Your task to perform on an android device: What's the weather going to be tomorrow? Image 0: 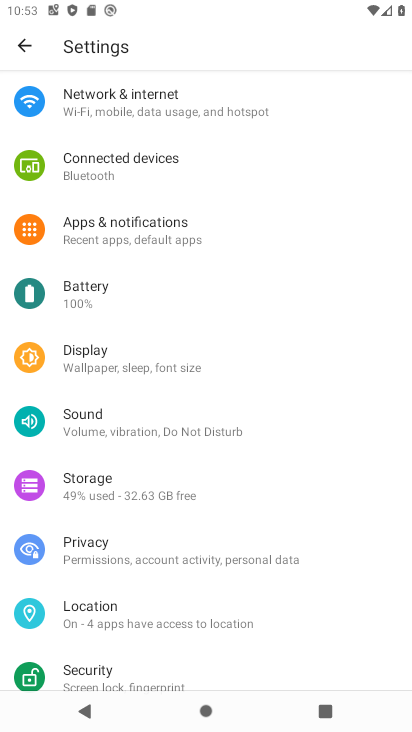
Step 0: press home button
Your task to perform on an android device: What's the weather going to be tomorrow? Image 1: 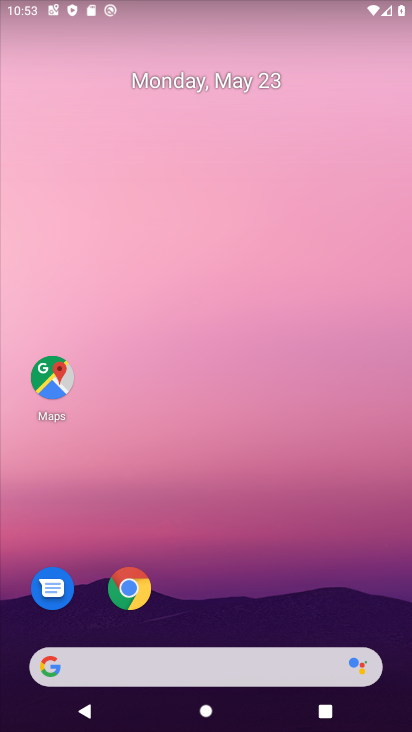
Step 1: click (128, 587)
Your task to perform on an android device: What's the weather going to be tomorrow? Image 2: 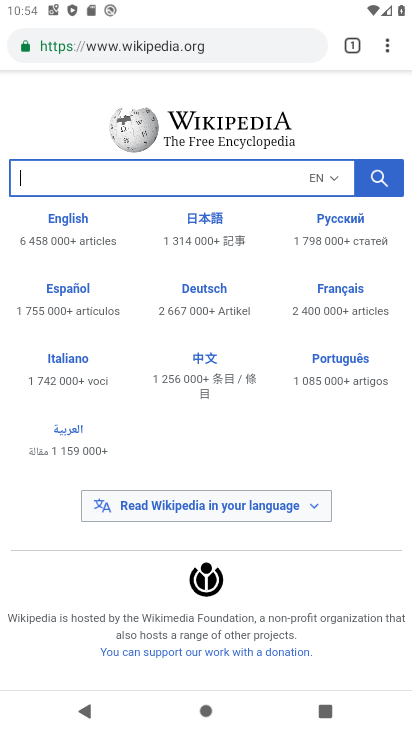
Step 2: click (212, 48)
Your task to perform on an android device: What's the weather going to be tomorrow? Image 3: 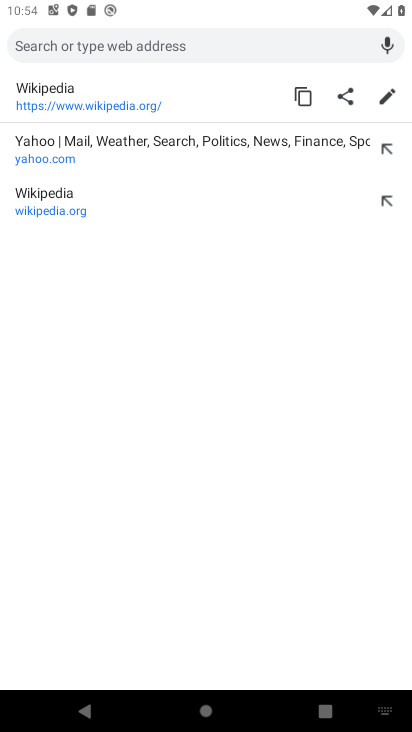
Step 3: type "weather"
Your task to perform on an android device: What's the weather going to be tomorrow? Image 4: 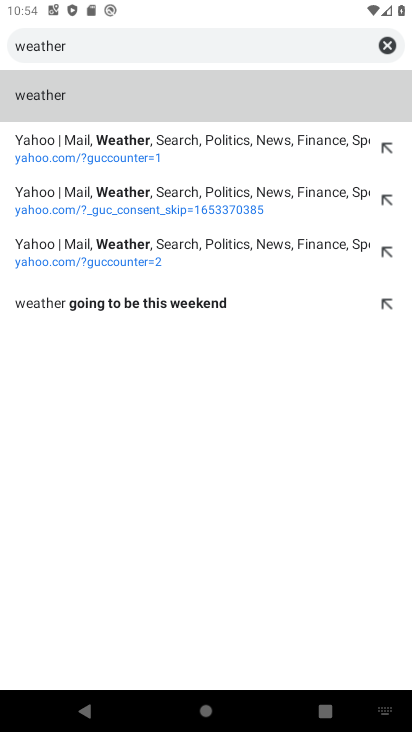
Step 4: click (45, 88)
Your task to perform on an android device: What's the weather going to be tomorrow? Image 5: 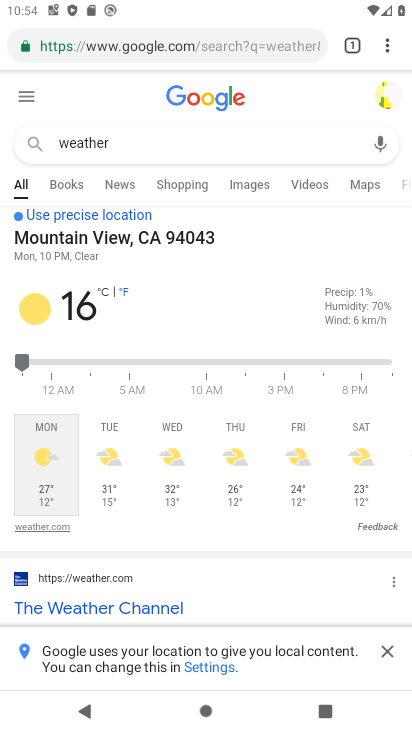
Step 5: click (98, 453)
Your task to perform on an android device: What's the weather going to be tomorrow? Image 6: 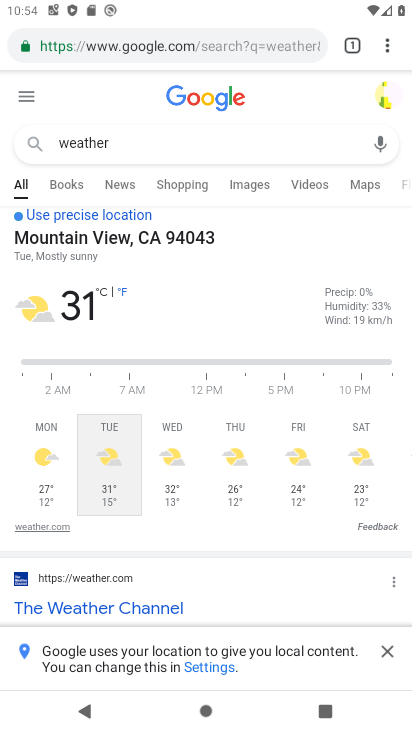
Step 6: task complete